Your task to perform on an android device: turn on javascript in the chrome app Image 0: 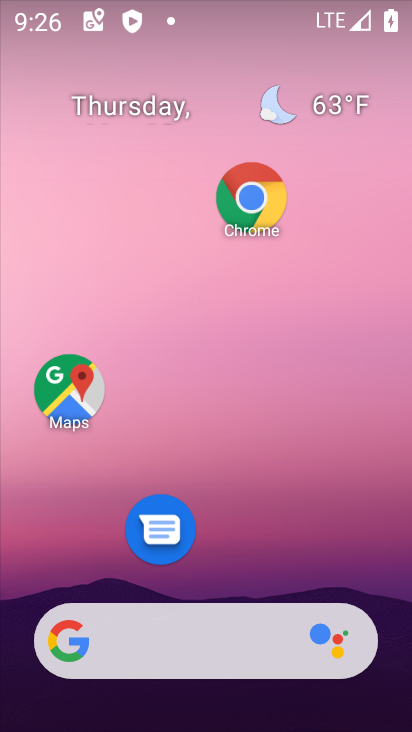
Step 0: click (260, 210)
Your task to perform on an android device: turn on javascript in the chrome app Image 1: 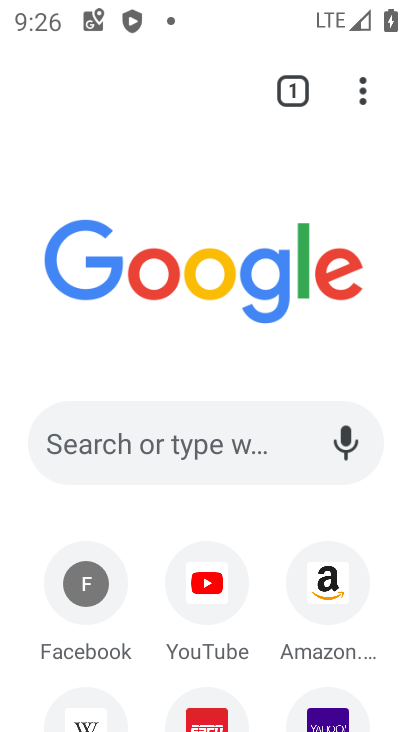
Step 1: click (369, 106)
Your task to perform on an android device: turn on javascript in the chrome app Image 2: 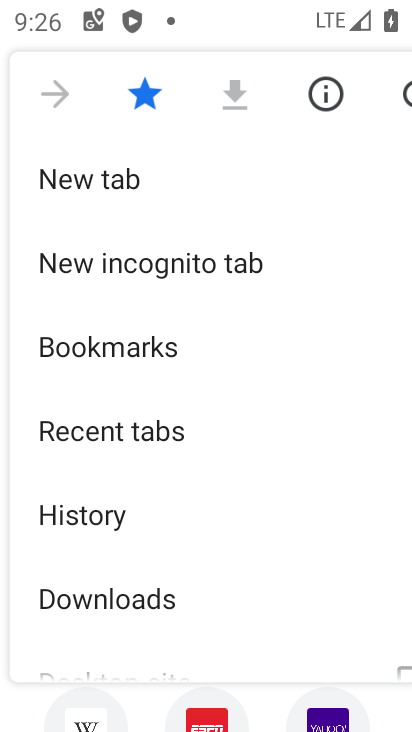
Step 2: drag from (195, 467) to (186, 145)
Your task to perform on an android device: turn on javascript in the chrome app Image 3: 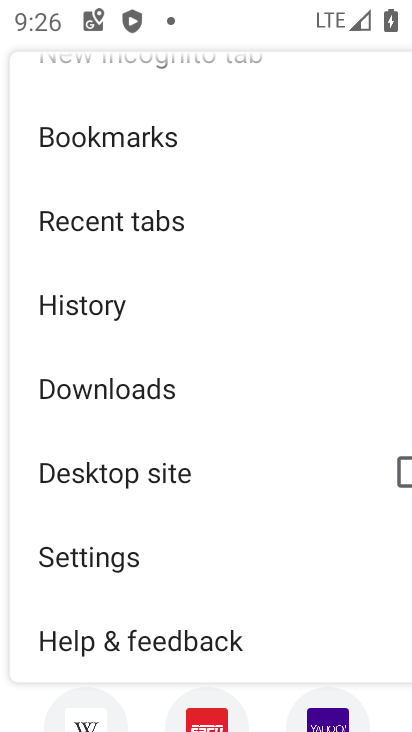
Step 3: click (183, 554)
Your task to perform on an android device: turn on javascript in the chrome app Image 4: 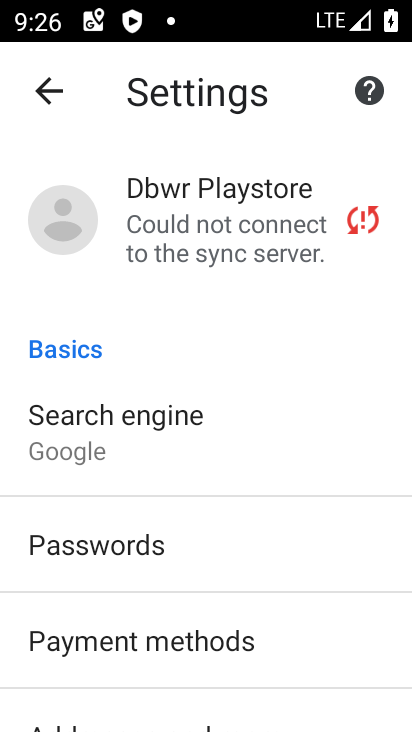
Step 4: drag from (161, 605) to (187, 38)
Your task to perform on an android device: turn on javascript in the chrome app Image 5: 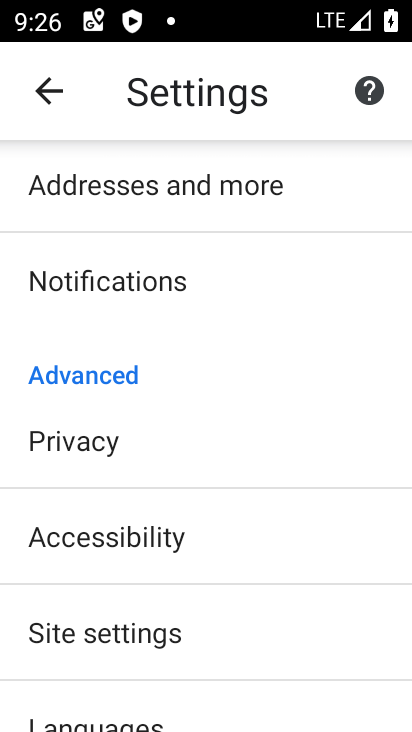
Step 5: drag from (245, 637) to (248, 365)
Your task to perform on an android device: turn on javascript in the chrome app Image 6: 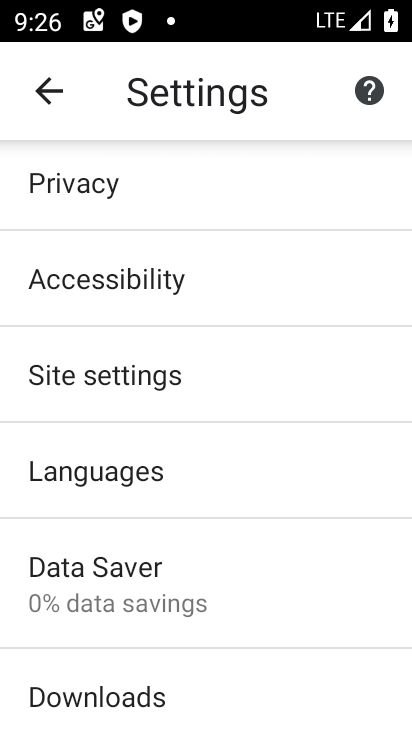
Step 6: click (170, 366)
Your task to perform on an android device: turn on javascript in the chrome app Image 7: 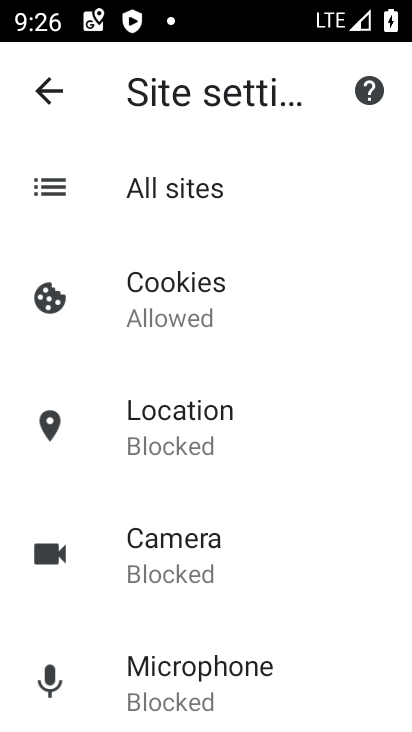
Step 7: drag from (211, 648) to (162, 217)
Your task to perform on an android device: turn on javascript in the chrome app Image 8: 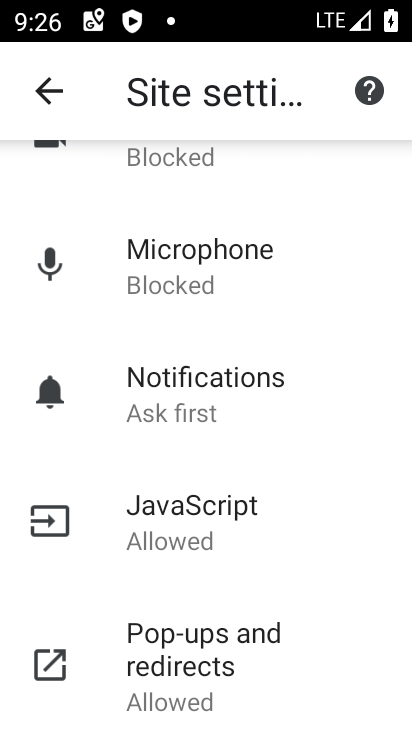
Step 8: click (167, 543)
Your task to perform on an android device: turn on javascript in the chrome app Image 9: 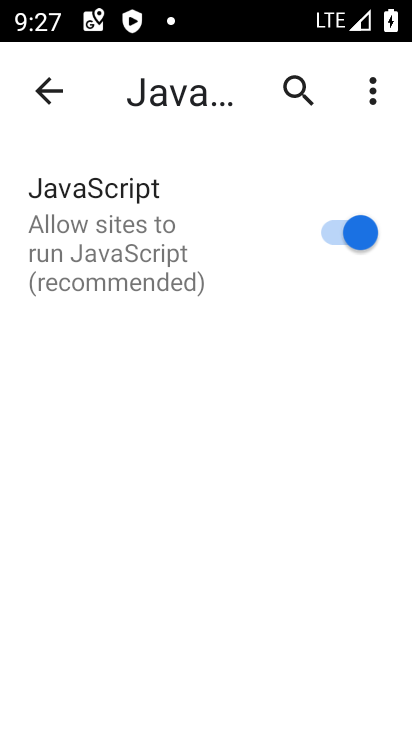
Step 9: task complete